Your task to perform on an android device: toggle pop-ups in chrome Image 0: 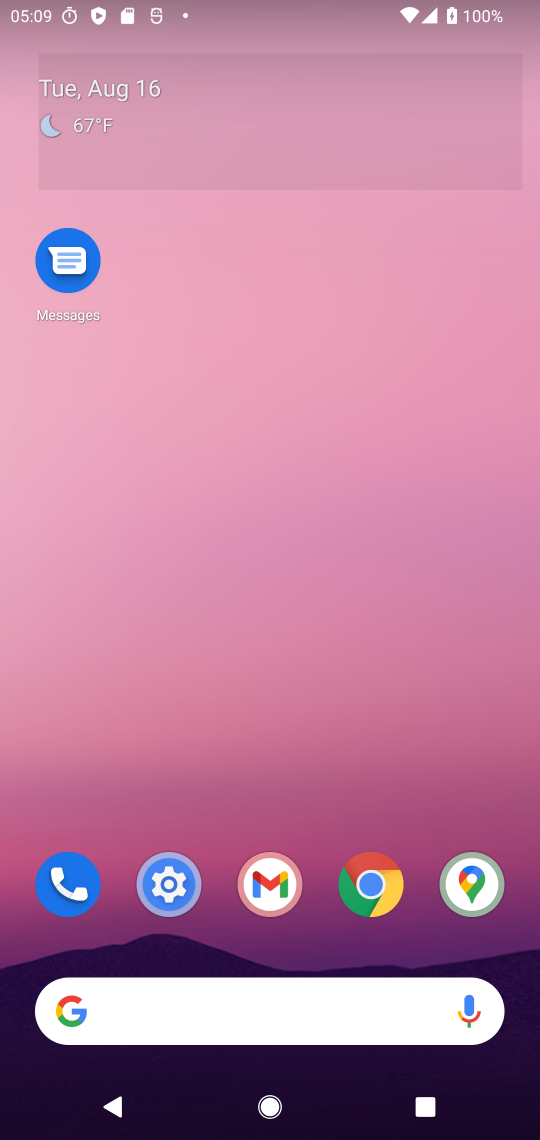
Step 0: click (352, 893)
Your task to perform on an android device: toggle pop-ups in chrome Image 1: 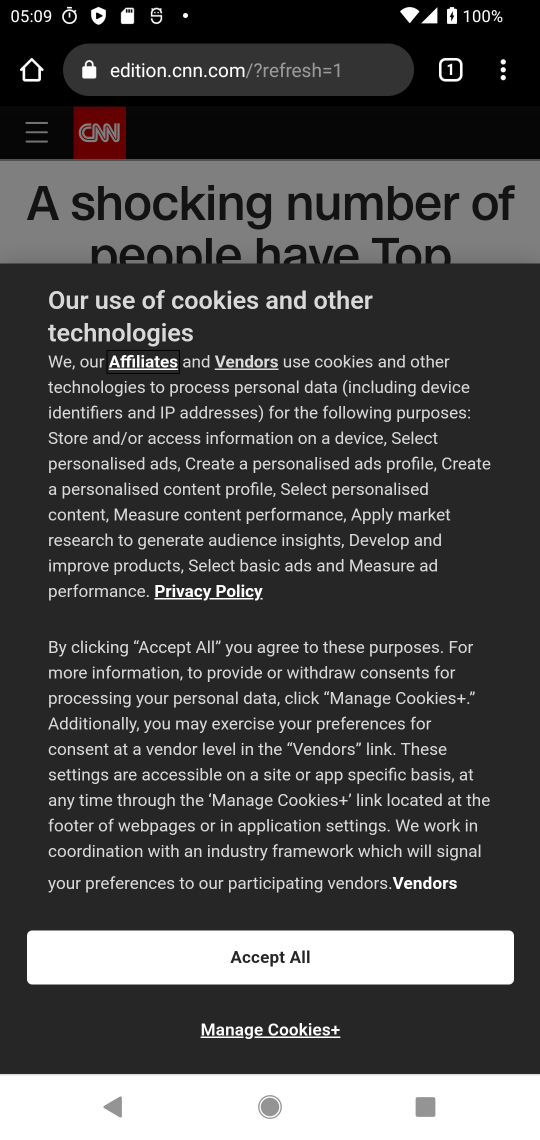
Step 1: click (513, 74)
Your task to perform on an android device: toggle pop-ups in chrome Image 2: 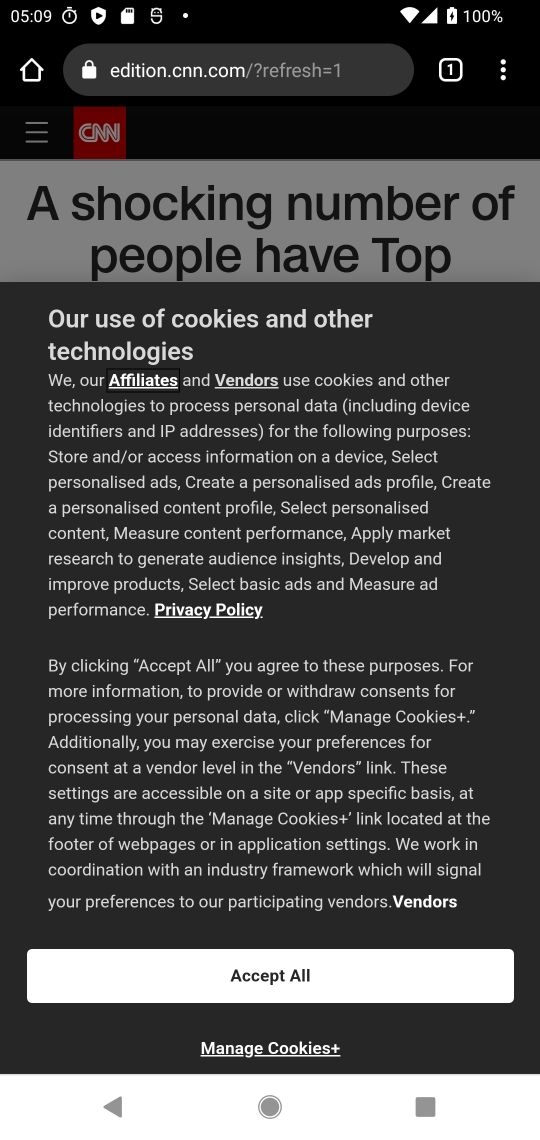
Step 2: click (510, 73)
Your task to perform on an android device: toggle pop-ups in chrome Image 3: 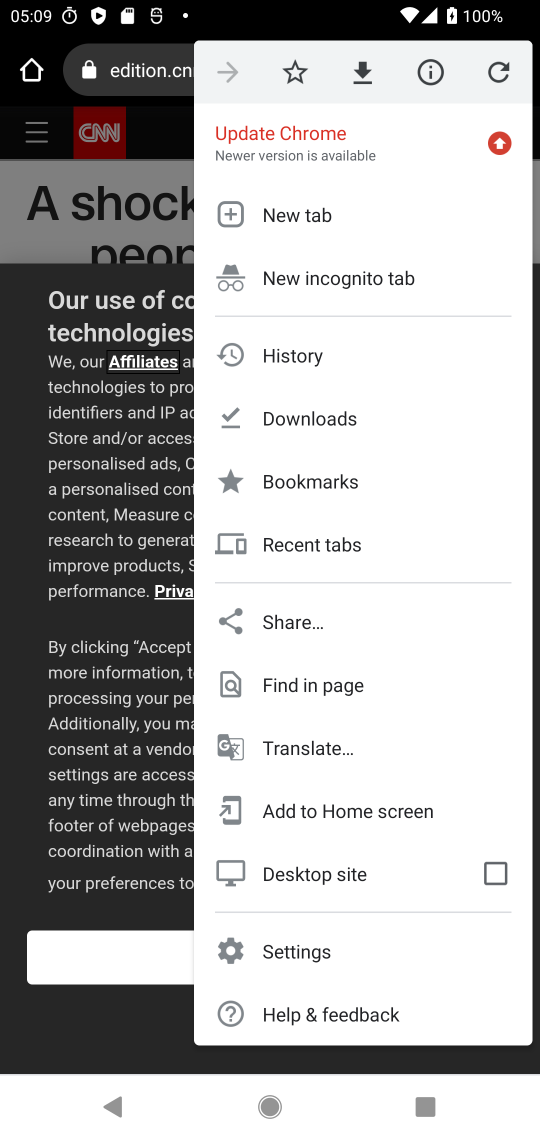
Step 3: click (295, 947)
Your task to perform on an android device: toggle pop-ups in chrome Image 4: 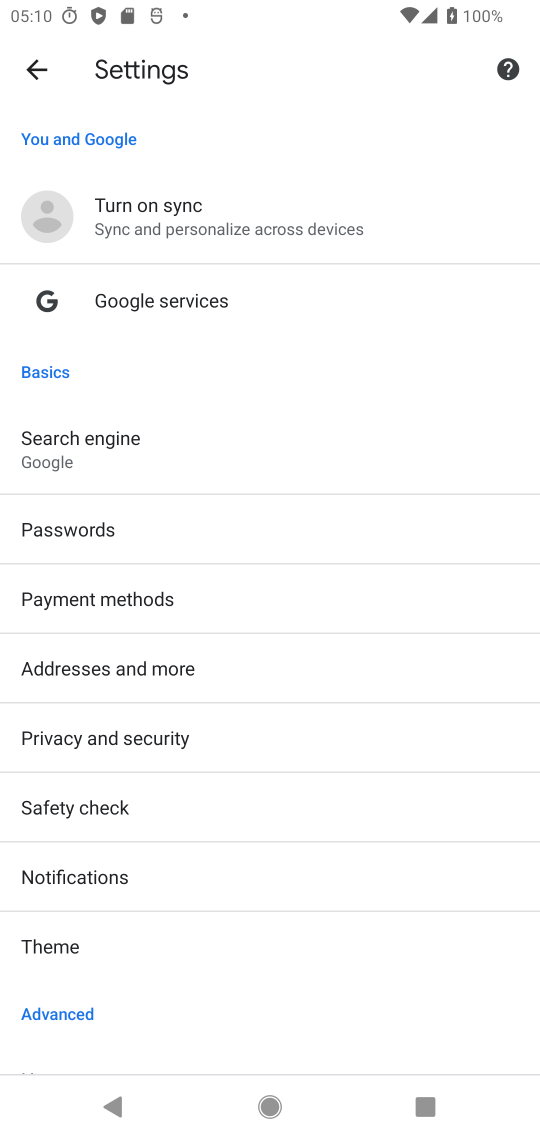
Step 4: drag from (194, 964) to (336, 379)
Your task to perform on an android device: toggle pop-ups in chrome Image 5: 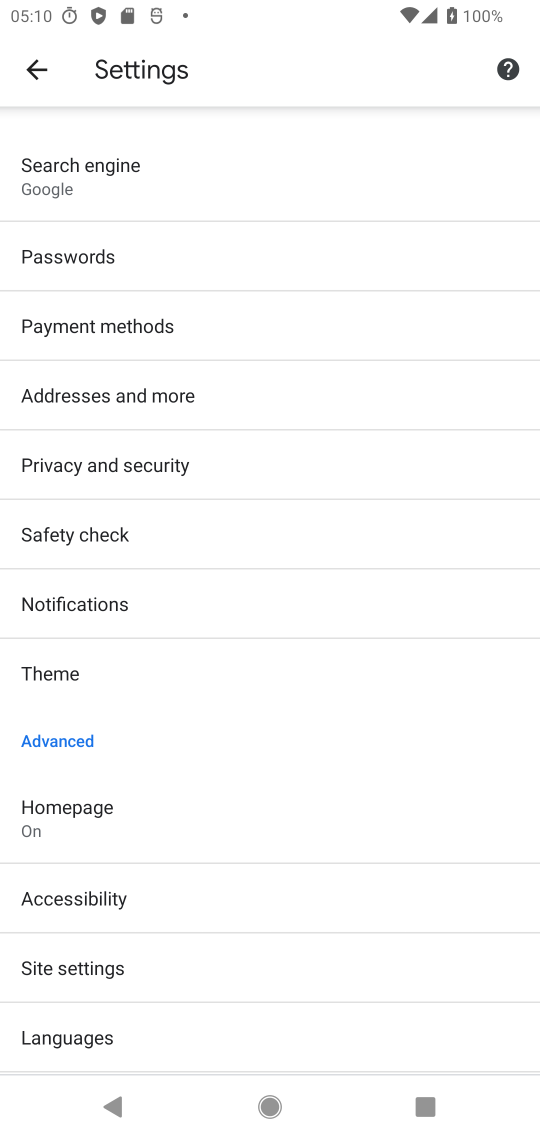
Step 5: click (89, 965)
Your task to perform on an android device: toggle pop-ups in chrome Image 6: 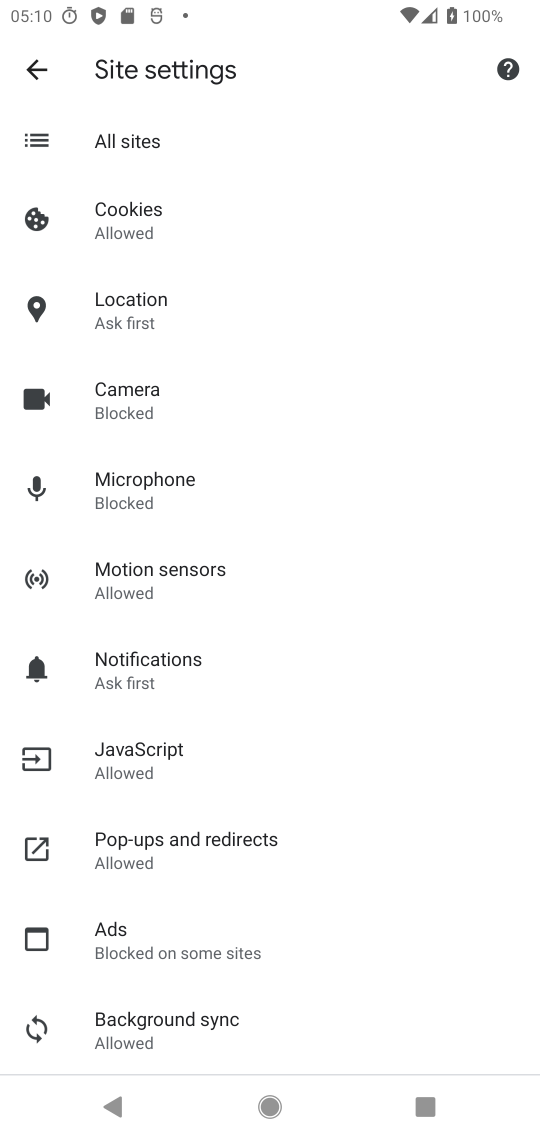
Step 6: click (194, 849)
Your task to perform on an android device: toggle pop-ups in chrome Image 7: 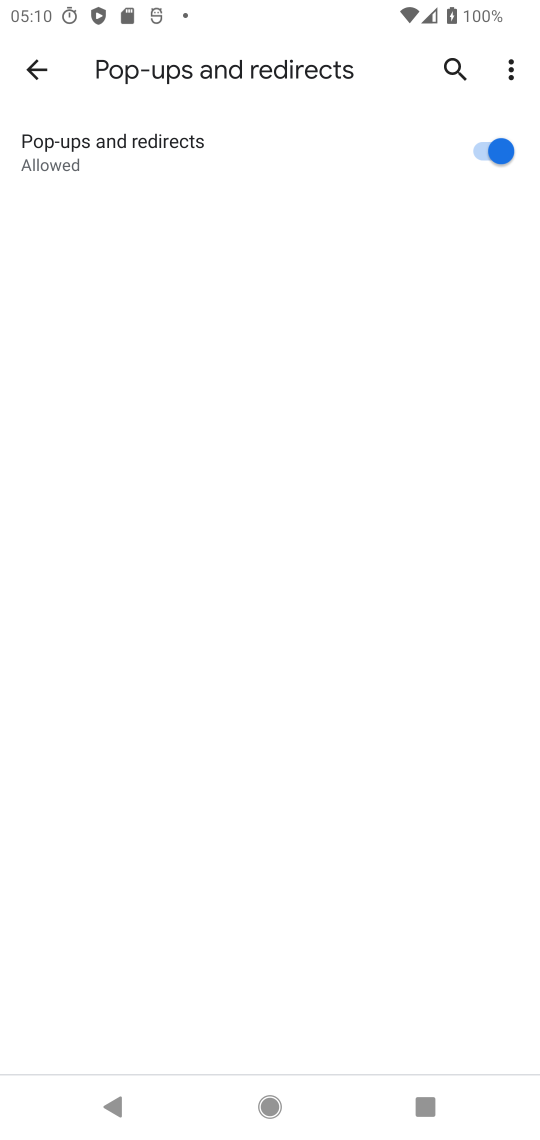
Step 7: task complete